Your task to perform on an android device: find photos in the google photos app Image 0: 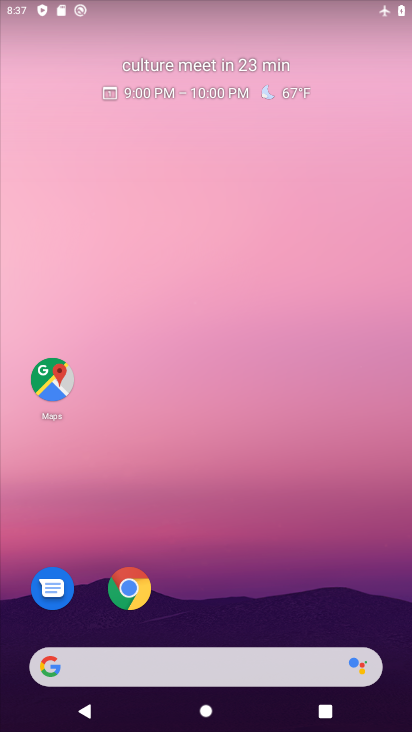
Step 0: drag from (318, 388) to (323, 23)
Your task to perform on an android device: find photos in the google photos app Image 1: 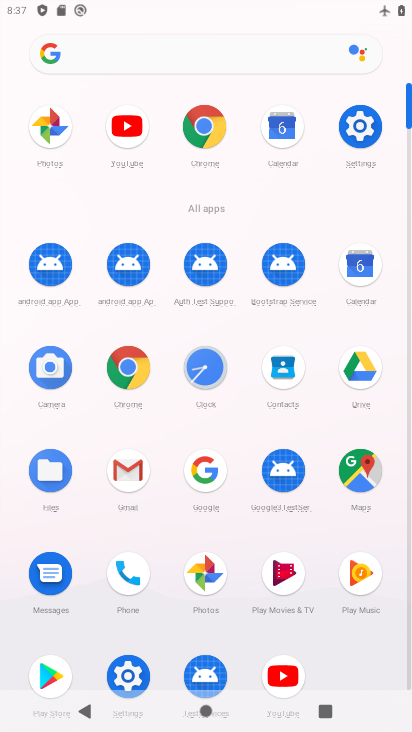
Step 1: click (193, 581)
Your task to perform on an android device: find photos in the google photos app Image 2: 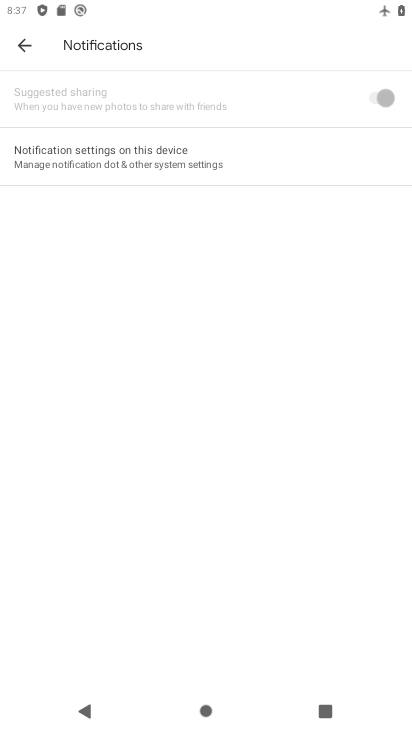
Step 2: click (35, 52)
Your task to perform on an android device: find photos in the google photos app Image 3: 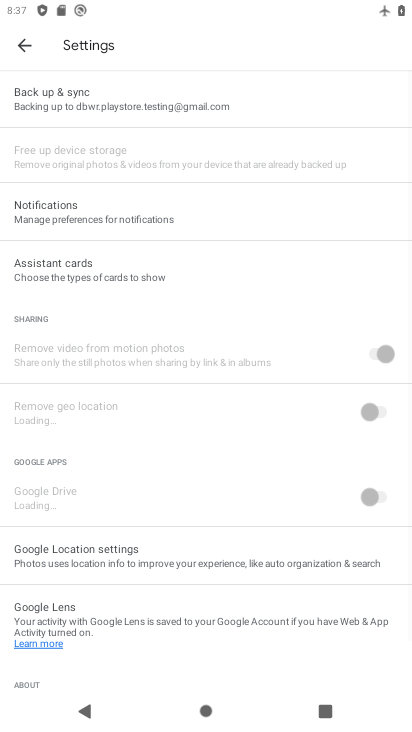
Step 3: click (34, 51)
Your task to perform on an android device: find photos in the google photos app Image 4: 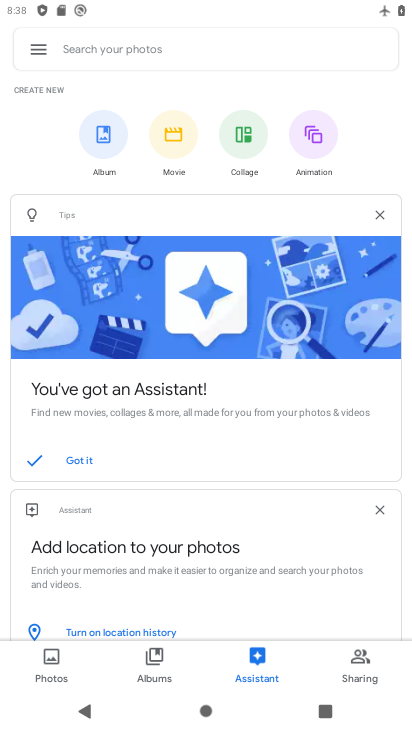
Step 4: click (47, 665)
Your task to perform on an android device: find photos in the google photos app Image 5: 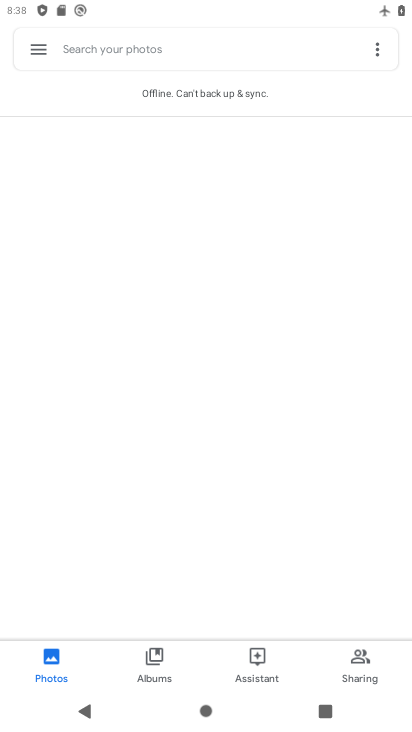
Step 5: task complete